Your task to perform on an android device: Search for vegetarian restaurants on Maps Image 0: 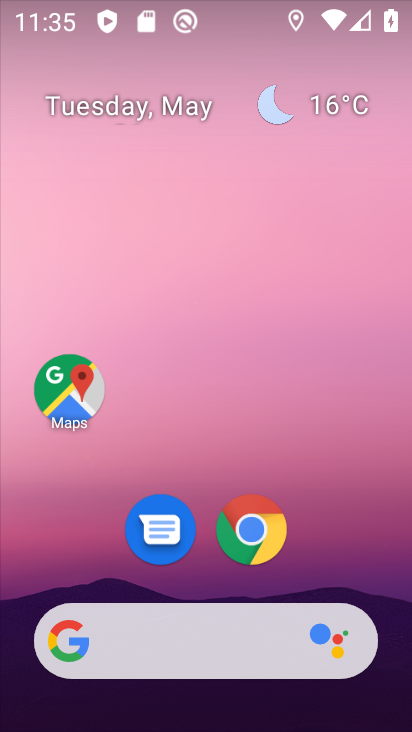
Step 0: click (79, 382)
Your task to perform on an android device: Search for vegetarian restaurants on Maps Image 1: 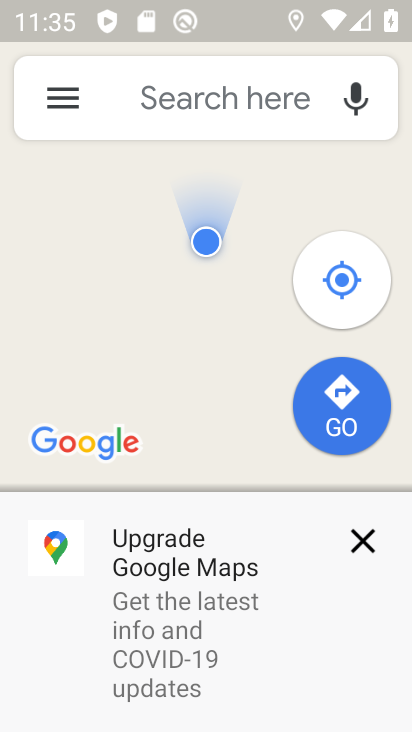
Step 1: click (358, 546)
Your task to perform on an android device: Search for vegetarian restaurants on Maps Image 2: 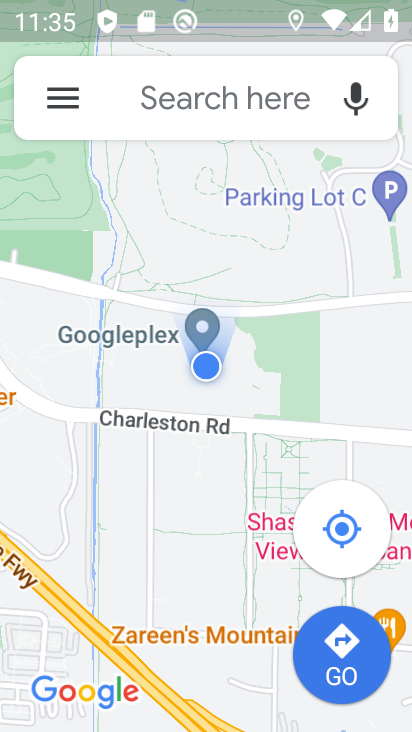
Step 2: click (199, 100)
Your task to perform on an android device: Search for vegetarian restaurants on Maps Image 3: 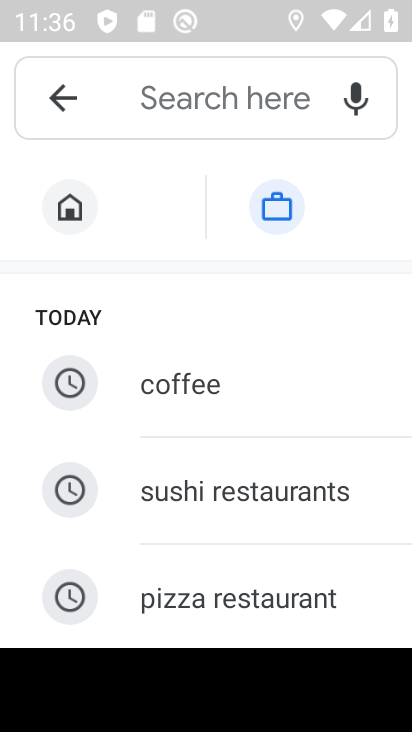
Step 3: type "Vegetarian restaurants"
Your task to perform on an android device: Search for vegetarian restaurants on Maps Image 4: 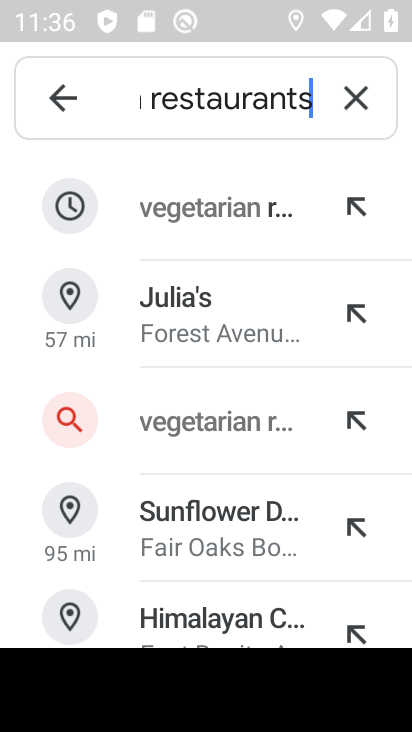
Step 4: click (207, 218)
Your task to perform on an android device: Search for vegetarian restaurants on Maps Image 5: 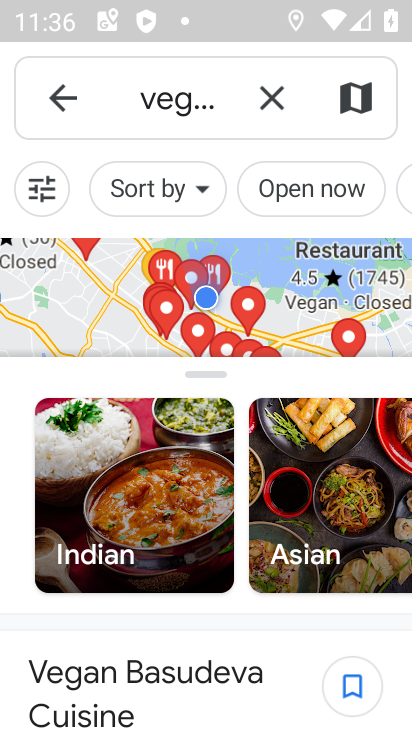
Step 5: task complete